Your task to perform on an android device: Go to calendar. Show me events next week Image 0: 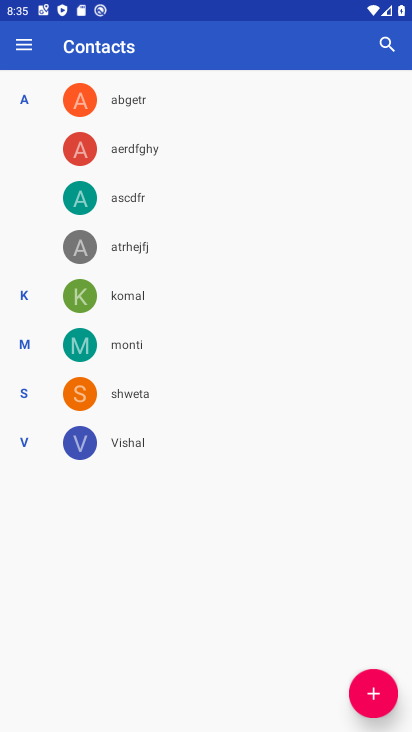
Step 0: press home button
Your task to perform on an android device: Go to calendar. Show me events next week Image 1: 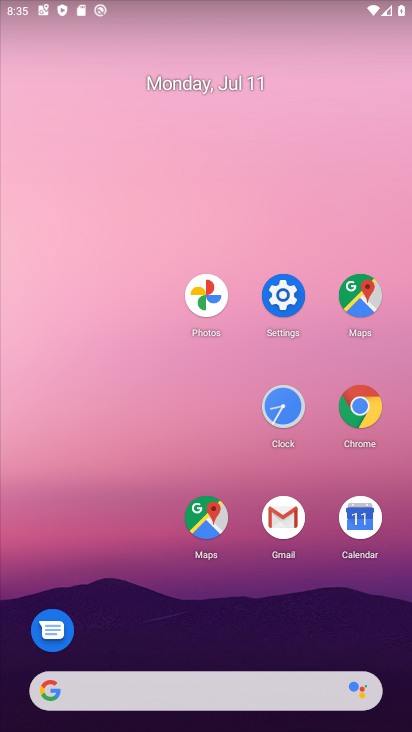
Step 1: click (364, 512)
Your task to perform on an android device: Go to calendar. Show me events next week Image 2: 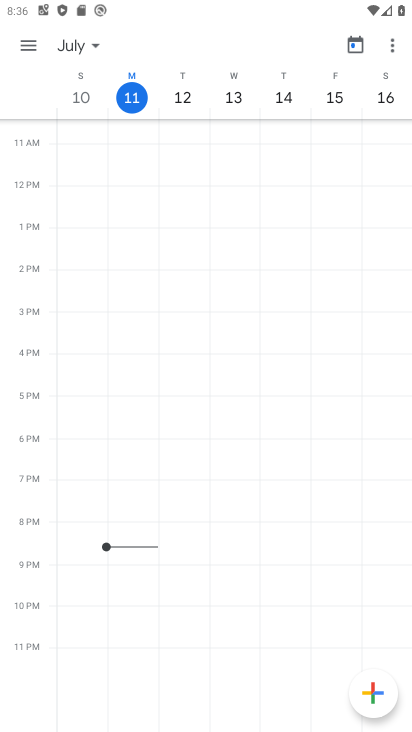
Step 2: task complete